Your task to perform on an android device: turn on improve location accuracy Image 0: 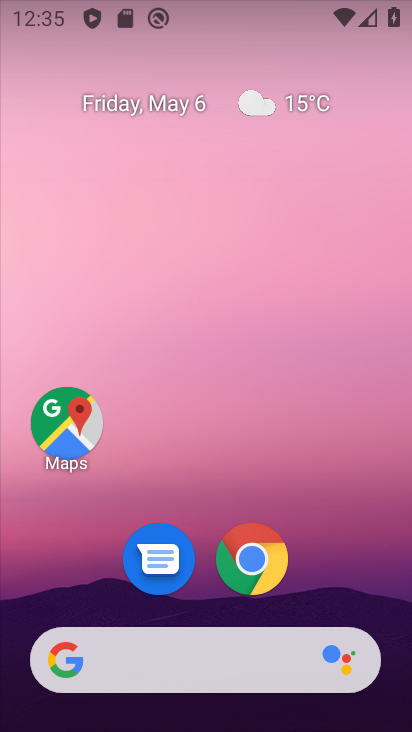
Step 0: drag from (191, 230) to (218, 19)
Your task to perform on an android device: turn on improve location accuracy Image 1: 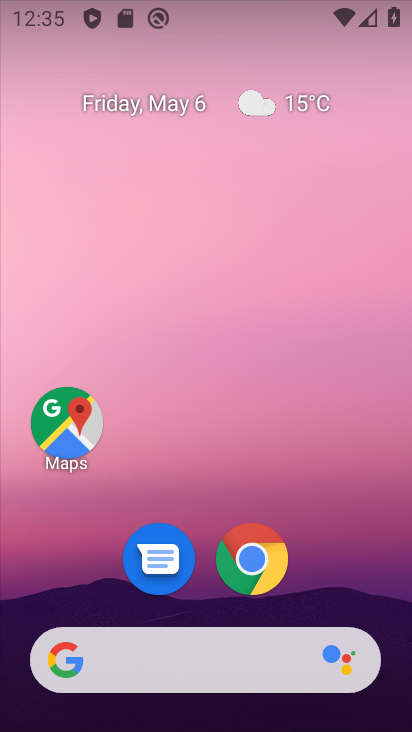
Step 1: drag from (196, 599) to (221, 99)
Your task to perform on an android device: turn on improve location accuracy Image 2: 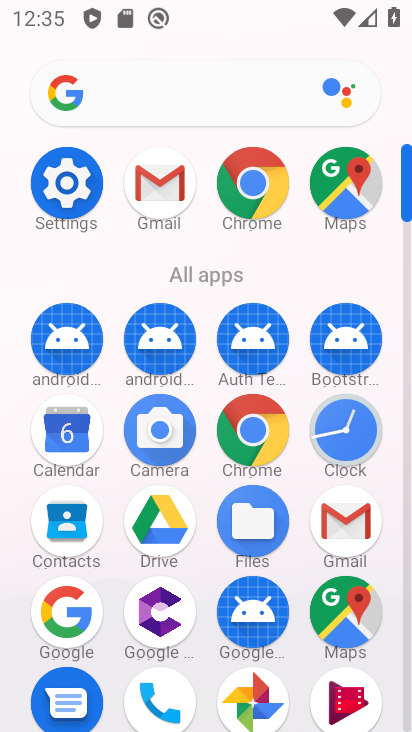
Step 2: click (79, 183)
Your task to perform on an android device: turn on improve location accuracy Image 3: 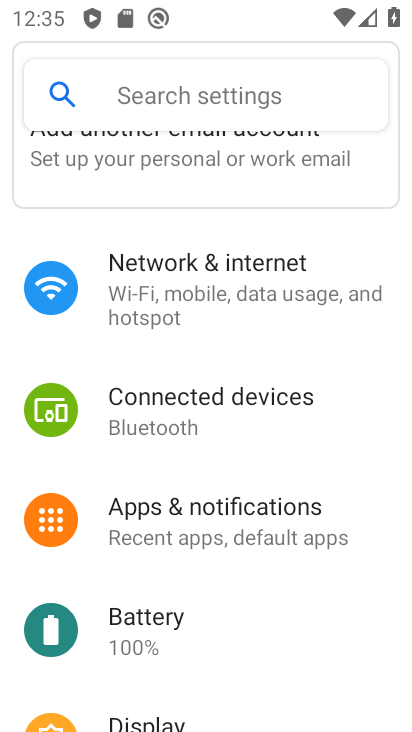
Step 3: drag from (195, 599) to (257, 151)
Your task to perform on an android device: turn on improve location accuracy Image 4: 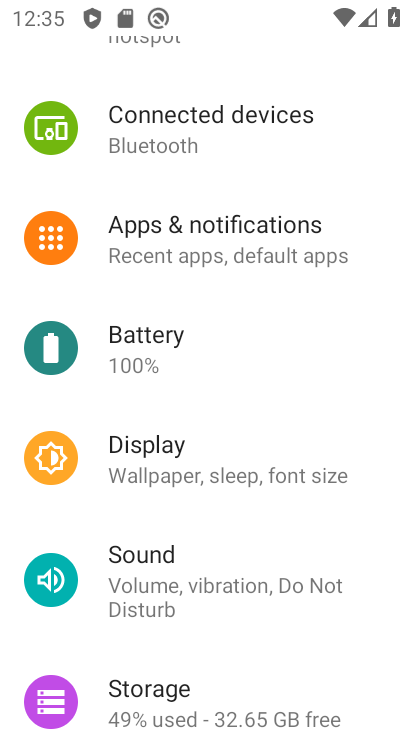
Step 4: drag from (204, 614) to (256, 362)
Your task to perform on an android device: turn on improve location accuracy Image 5: 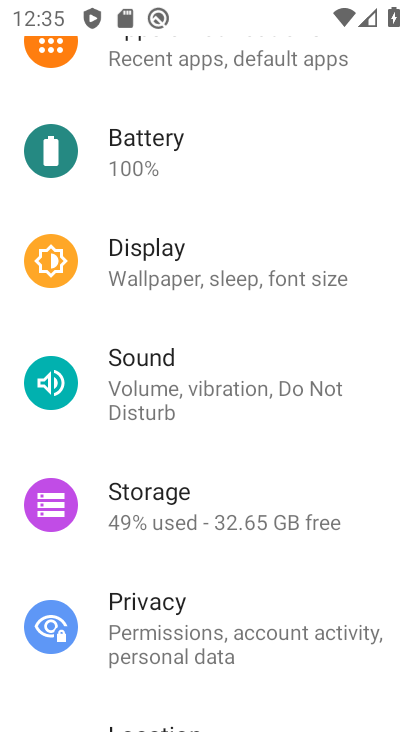
Step 5: drag from (185, 593) to (238, 397)
Your task to perform on an android device: turn on improve location accuracy Image 6: 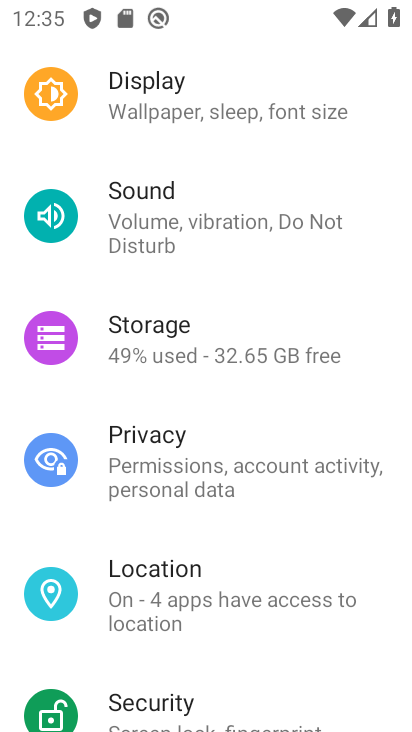
Step 6: click (192, 585)
Your task to perform on an android device: turn on improve location accuracy Image 7: 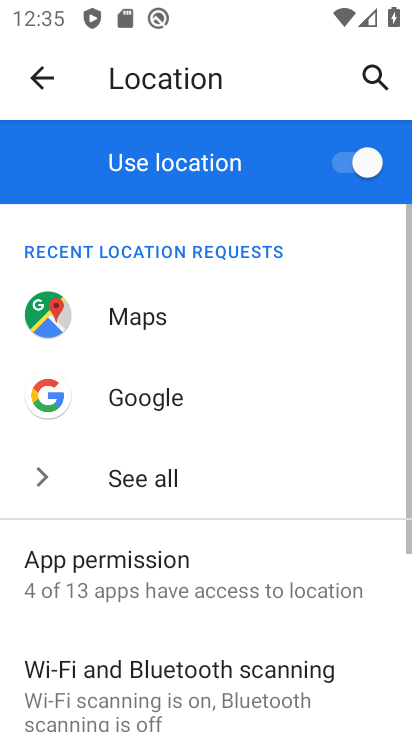
Step 7: drag from (197, 550) to (286, 184)
Your task to perform on an android device: turn on improve location accuracy Image 8: 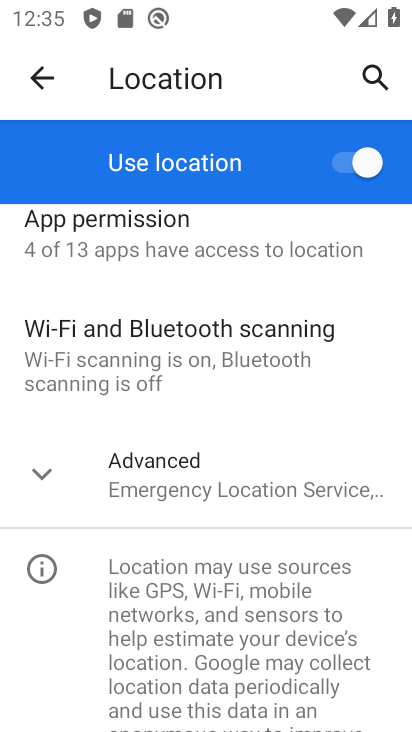
Step 8: click (174, 490)
Your task to perform on an android device: turn on improve location accuracy Image 9: 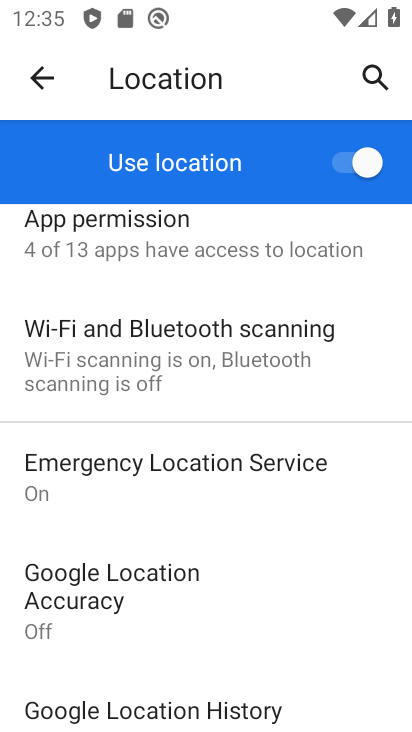
Step 9: click (93, 589)
Your task to perform on an android device: turn on improve location accuracy Image 10: 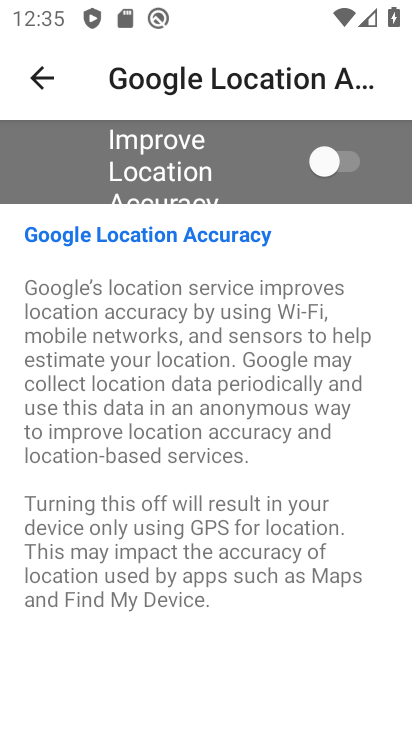
Step 10: task complete